Your task to perform on an android device: delete a single message in the gmail app Image 0: 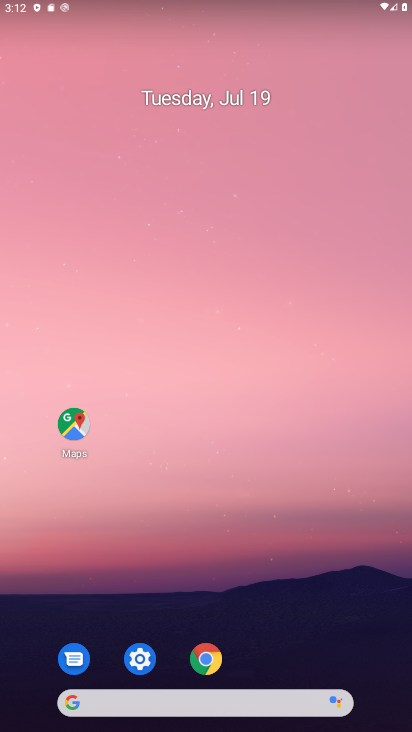
Step 0: click (264, 251)
Your task to perform on an android device: delete a single message in the gmail app Image 1: 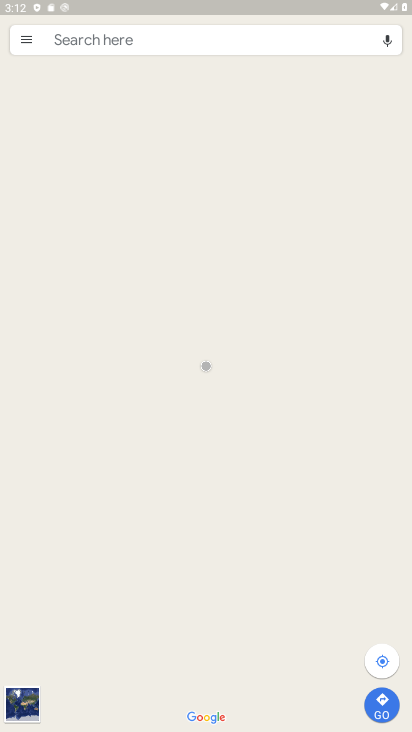
Step 1: press back button
Your task to perform on an android device: delete a single message in the gmail app Image 2: 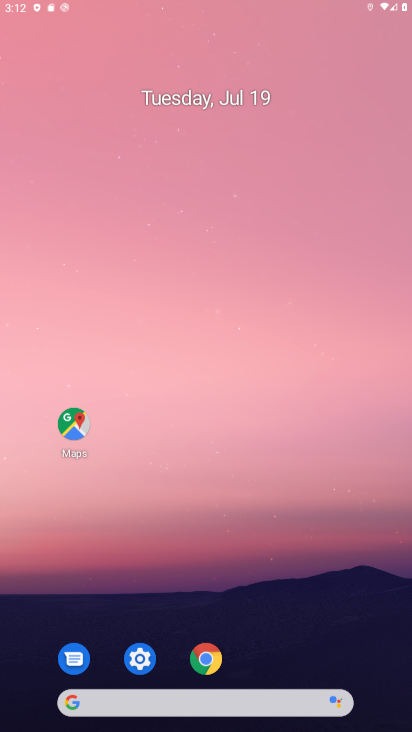
Step 2: press home button
Your task to perform on an android device: delete a single message in the gmail app Image 3: 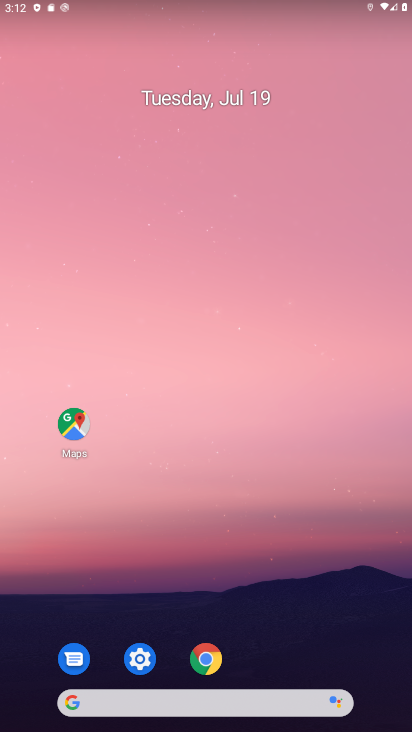
Step 3: drag from (238, 352) to (225, 176)
Your task to perform on an android device: delete a single message in the gmail app Image 4: 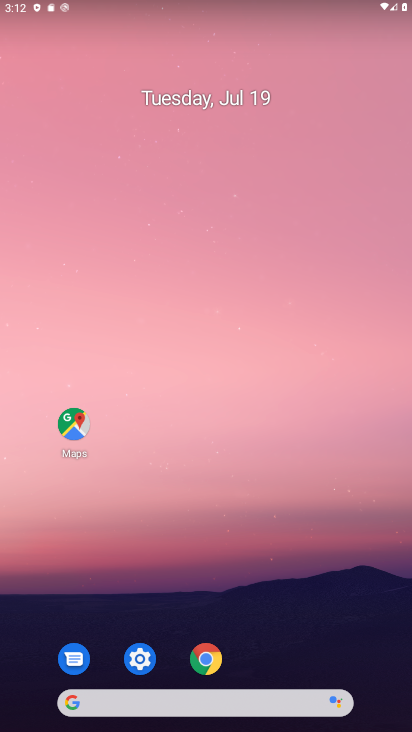
Step 4: drag from (184, 686) to (189, 340)
Your task to perform on an android device: delete a single message in the gmail app Image 5: 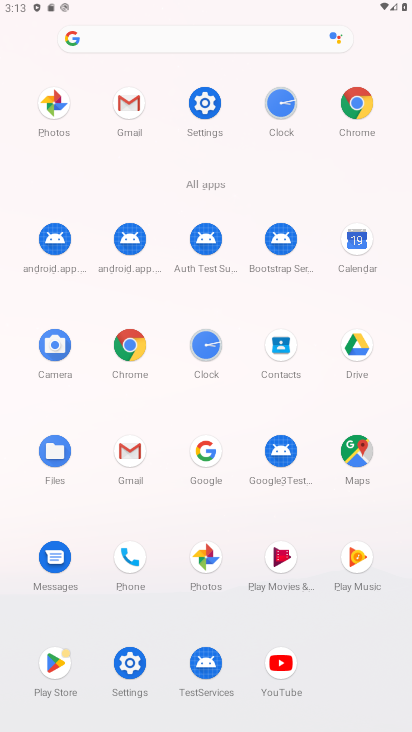
Step 5: click (130, 441)
Your task to perform on an android device: delete a single message in the gmail app Image 6: 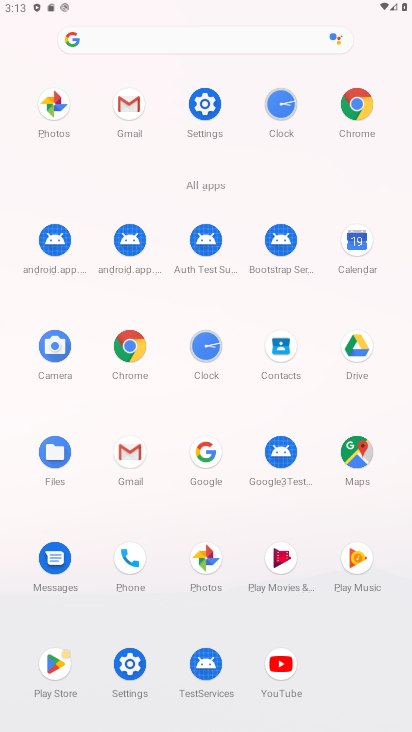
Step 6: click (138, 456)
Your task to perform on an android device: delete a single message in the gmail app Image 7: 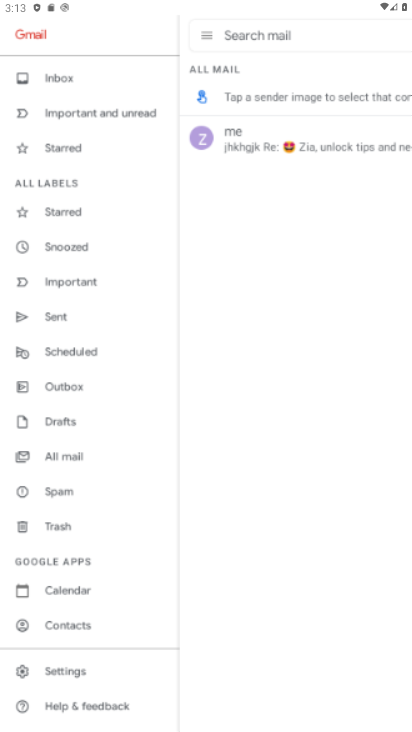
Step 7: click (139, 457)
Your task to perform on an android device: delete a single message in the gmail app Image 8: 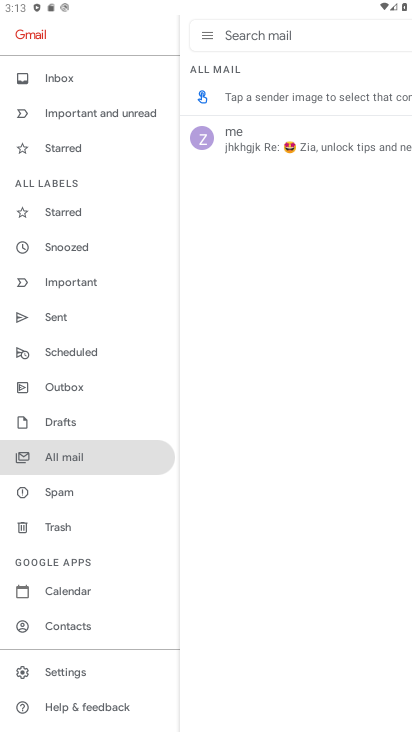
Step 8: click (91, 460)
Your task to perform on an android device: delete a single message in the gmail app Image 9: 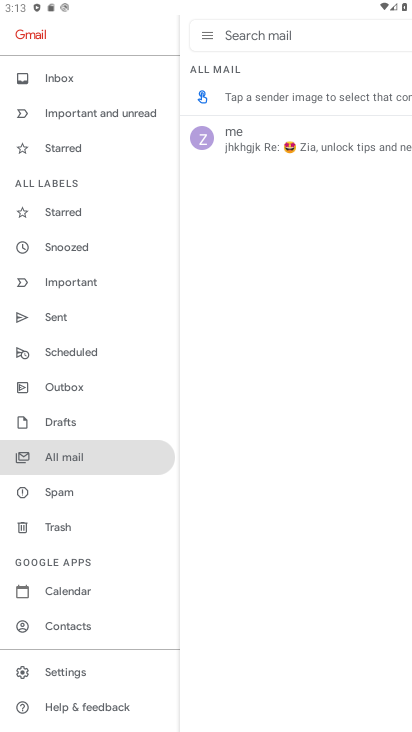
Step 9: click (89, 461)
Your task to perform on an android device: delete a single message in the gmail app Image 10: 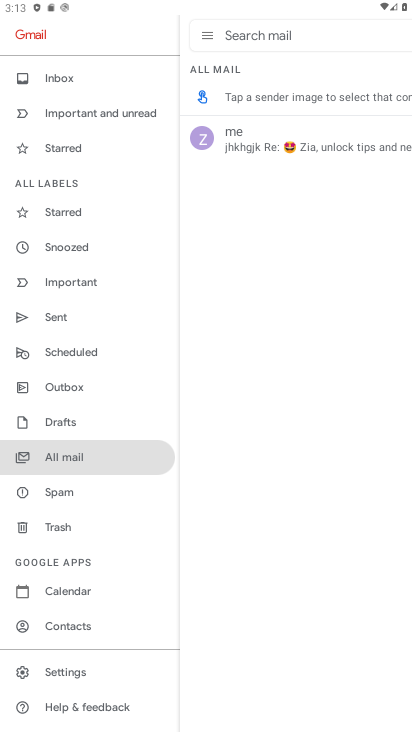
Step 10: click (89, 461)
Your task to perform on an android device: delete a single message in the gmail app Image 11: 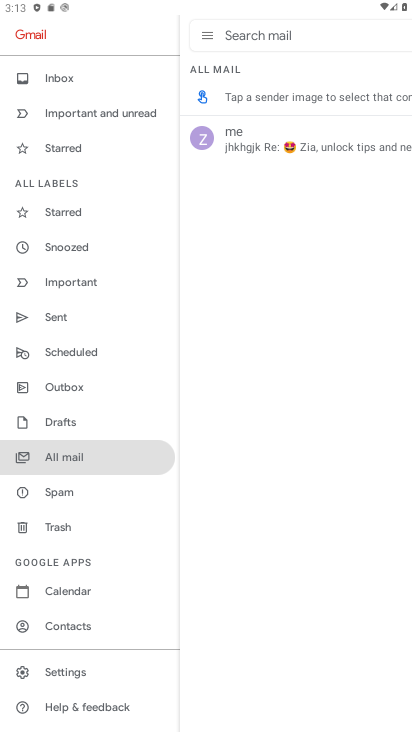
Step 11: click (85, 461)
Your task to perform on an android device: delete a single message in the gmail app Image 12: 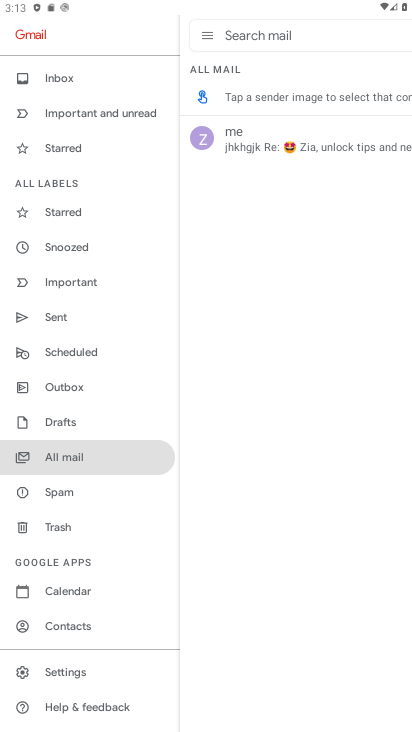
Step 12: click (85, 460)
Your task to perform on an android device: delete a single message in the gmail app Image 13: 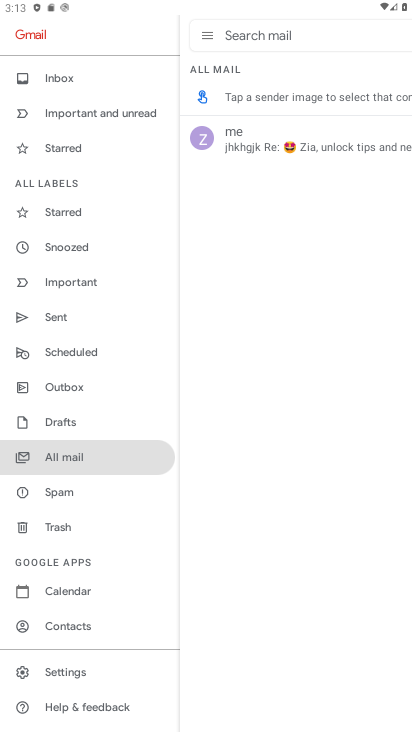
Step 13: click (286, 143)
Your task to perform on an android device: delete a single message in the gmail app Image 14: 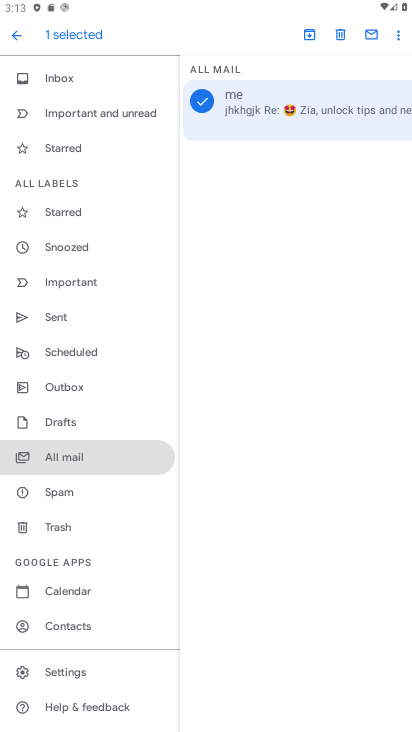
Step 14: click (335, 33)
Your task to perform on an android device: delete a single message in the gmail app Image 15: 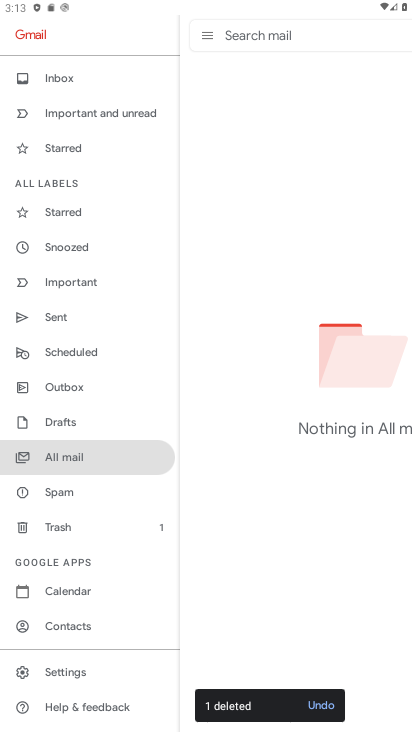
Step 15: task complete